Your task to perform on an android device: Open settings Image 0: 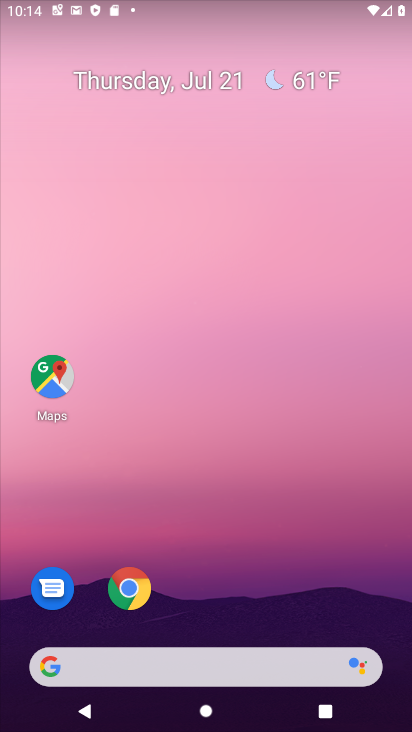
Step 0: drag from (232, 611) to (275, 45)
Your task to perform on an android device: Open settings Image 1: 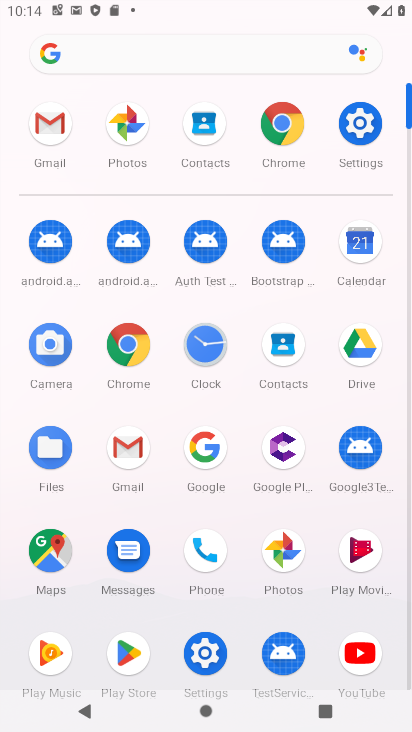
Step 1: click (376, 123)
Your task to perform on an android device: Open settings Image 2: 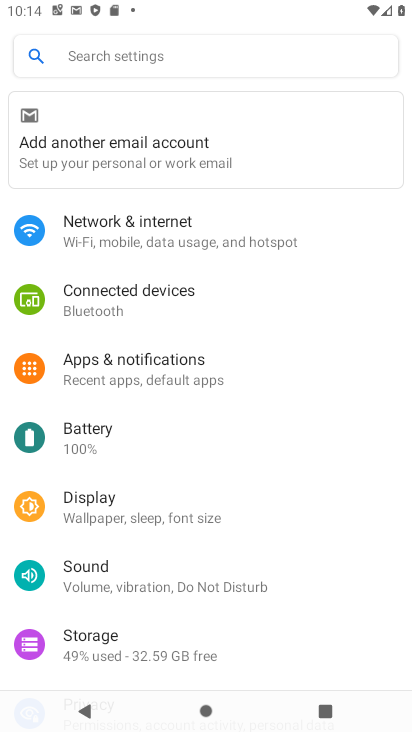
Step 2: task complete